Your task to perform on an android device: read, delete, or share a saved page in the chrome app Image 0: 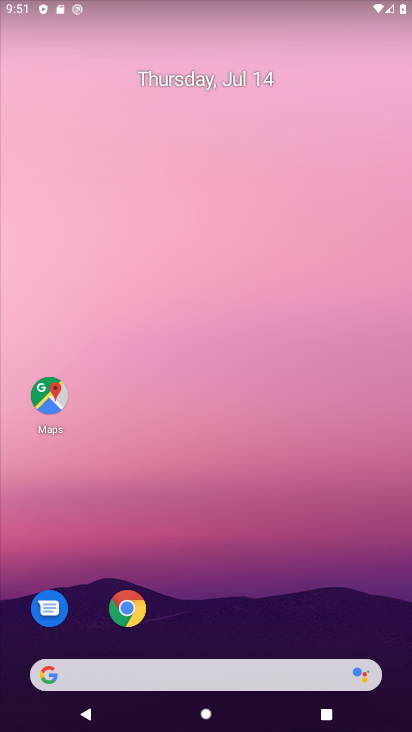
Step 0: click (128, 620)
Your task to perform on an android device: read, delete, or share a saved page in the chrome app Image 1: 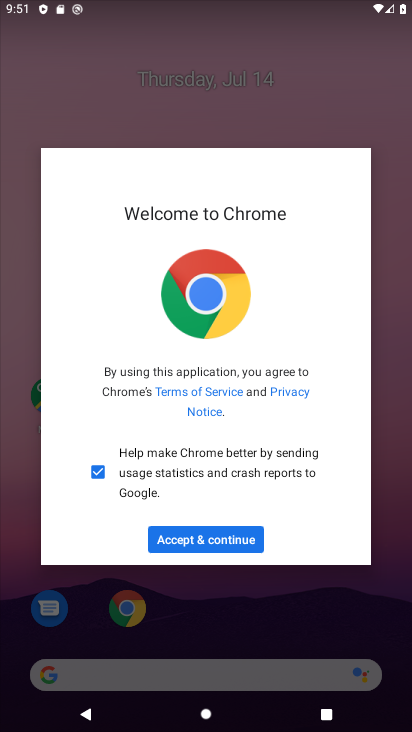
Step 1: click (229, 545)
Your task to perform on an android device: read, delete, or share a saved page in the chrome app Image 2: 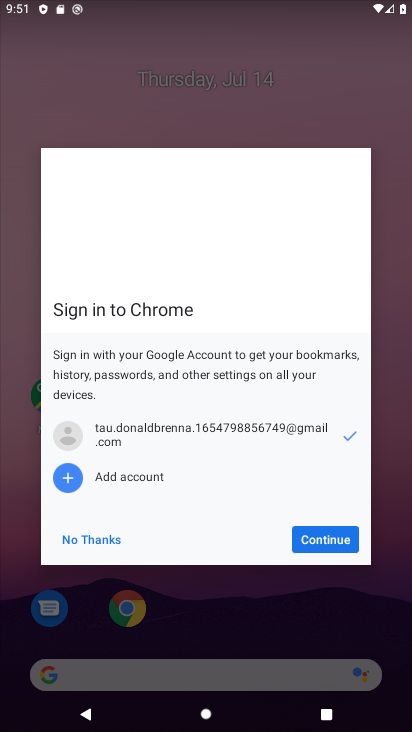
Step 2: click (325, 547)
Your task to perform on an android device: read, delete, or share a saved page in the chrome app Image 3: 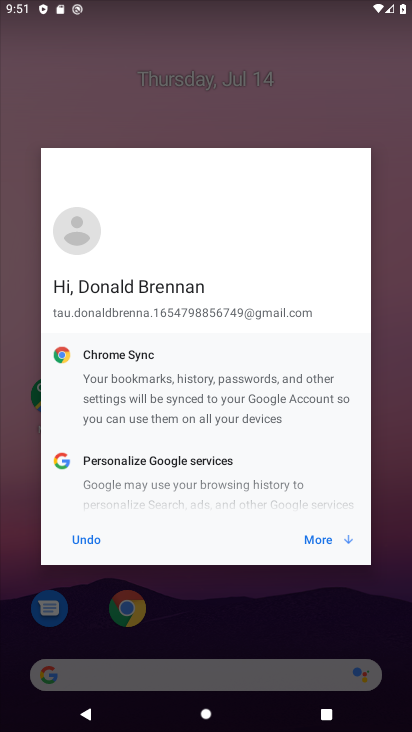
Step 3: click (322, 539)
Your task to perform on an android device: read, delete, or share a saved page in the chrome app Image 4: 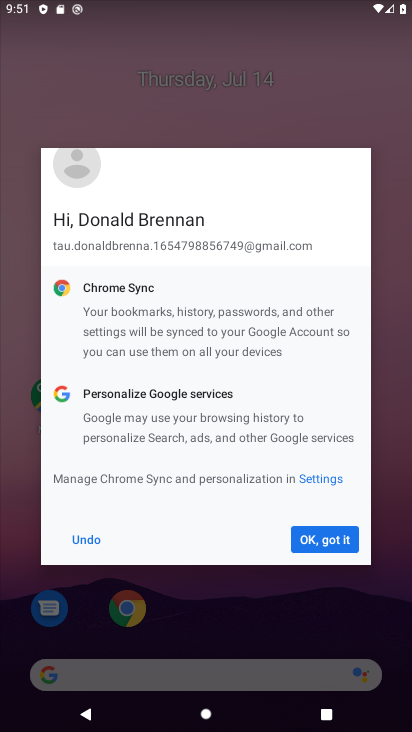
Step 4: click (325, 548)
Your task to perform on an android device: read, delete, or share a saved page in the chrome app Image 5: 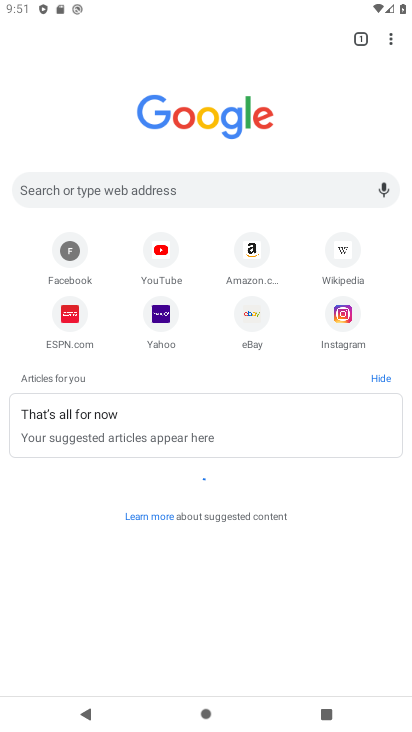
Step 5: click (397, 47)
Your task to perform on an android device: read, delete, or share a saved page in the chrome app Image 6: 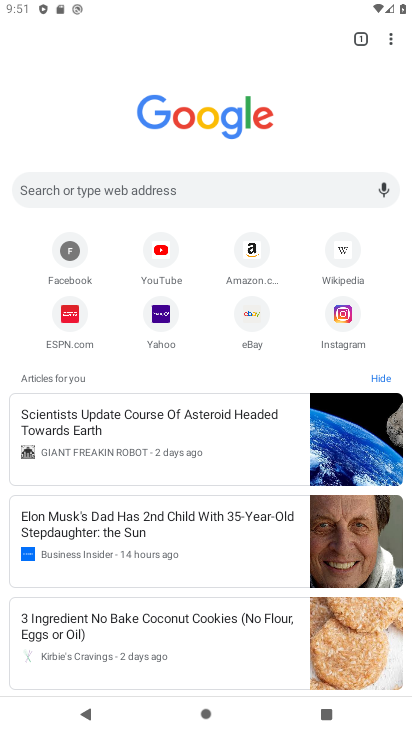
Step 6: click (387, 35)
Your task to perform on an android device: read, delete, or share a saved page in the chrome app Image 7: 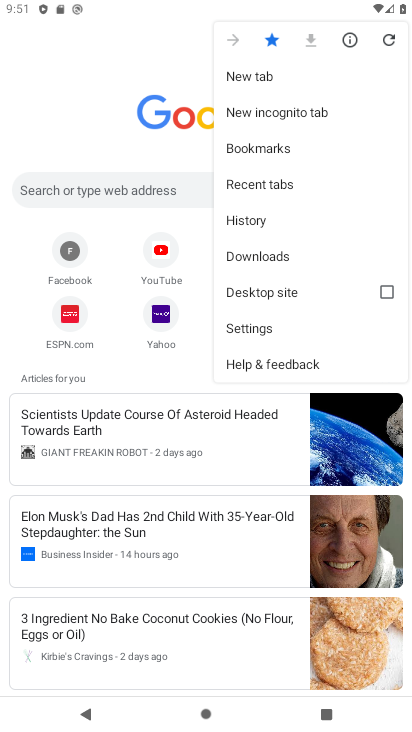
Step 7: click (272, 257)
Your task to perform on an android device: read, delete, or share a saved page in the chrome app Image 8: 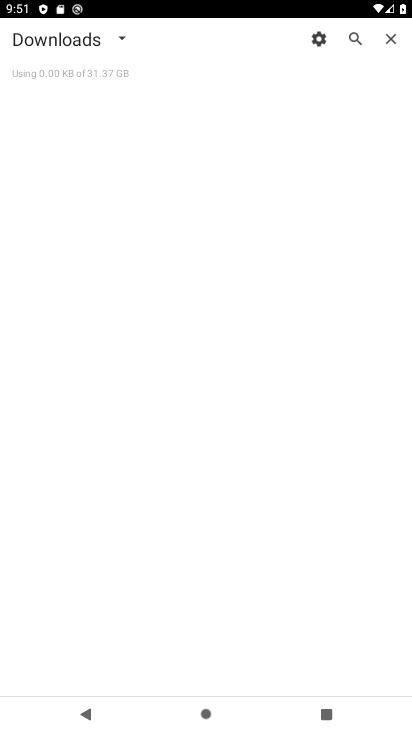
Step 8: task complete